Your task to perform on an android device: Open calendar and show me the second week of next month Image 0: 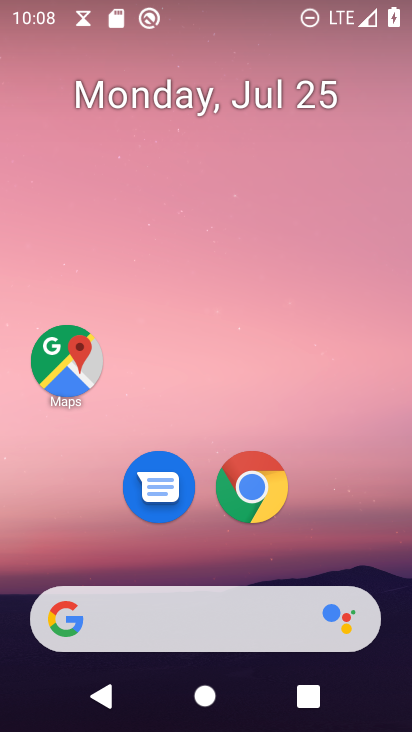
Step 0: drag from (105, 540) to (188, 15)
Your task to perform on an android device: Open calendar and show me the second week of next month Image 1: 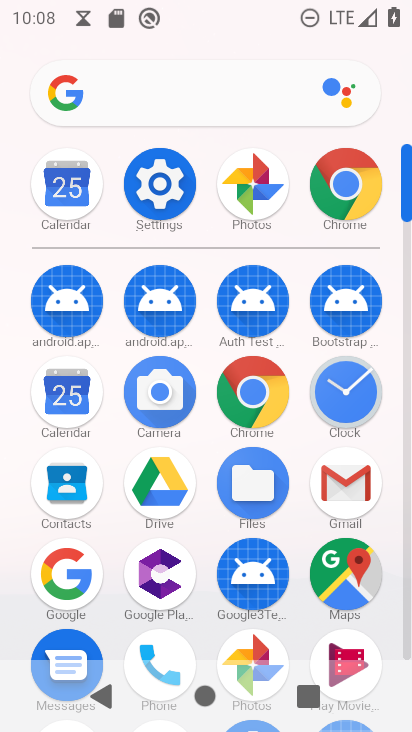
Step 1: click (58, 187)
Your task to perform on an android device: Open calendar and show me the second week of next month Image 2: 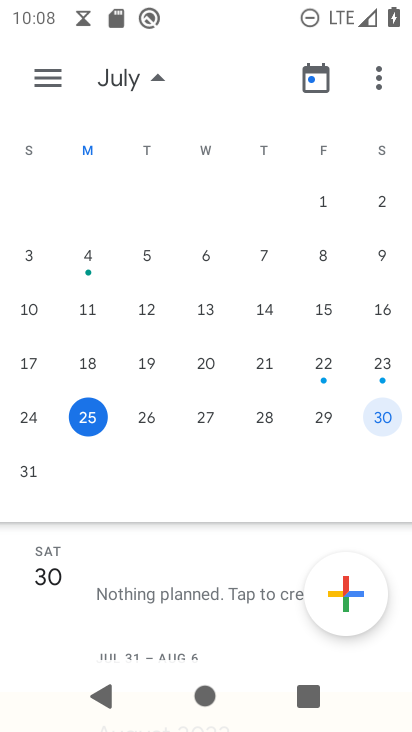
Step 2: drag from (374, 309) to (27, 303)
Your task to perform on an android device: Open calendar and show me the second week of next month Image 3: 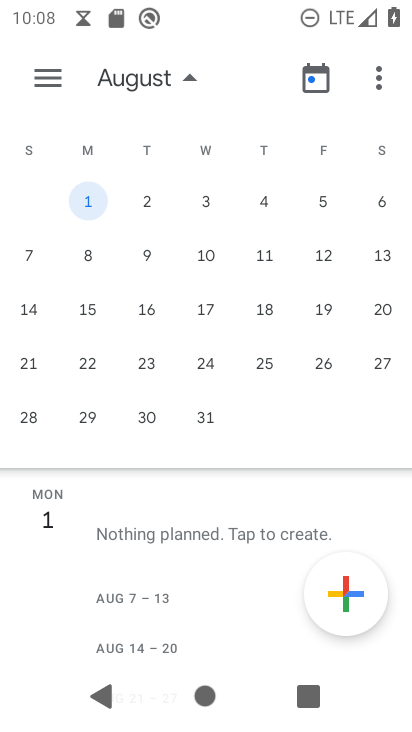
Step 3: click (91, 250)
Your task to perform on an android device: Open calendar and show me the second week of next month Image 4: 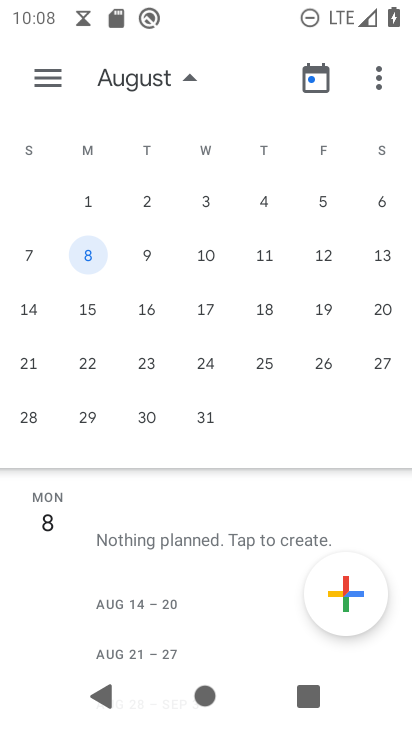
Step 4: task complete